Your task to perform on an android device: search for starred emails in the gmail app Image 0: 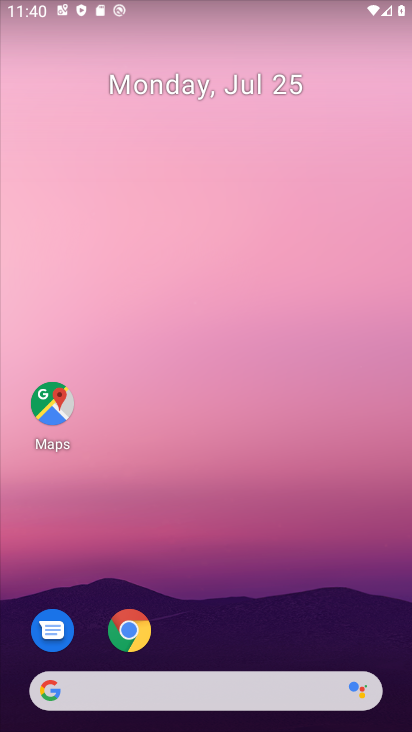
Step 0: drag from (319, 637) to (362, 122)
Your task to perform on an android device: search for starred emails in the gmail app Image 1: 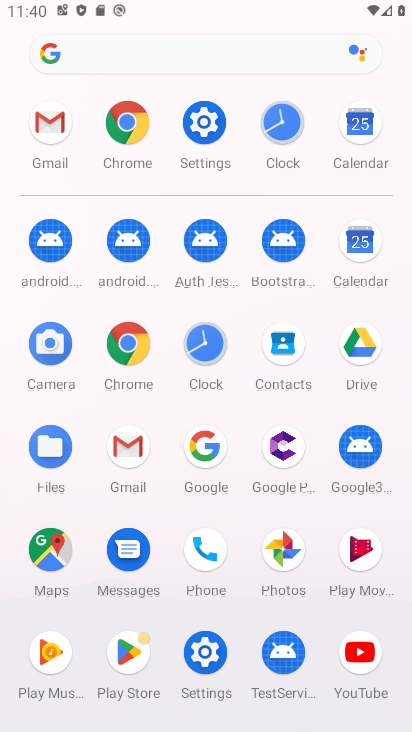
Step 1: click (131, 454)
Your task to perform on an android device: search for starred emails in the gmail app Image 2: 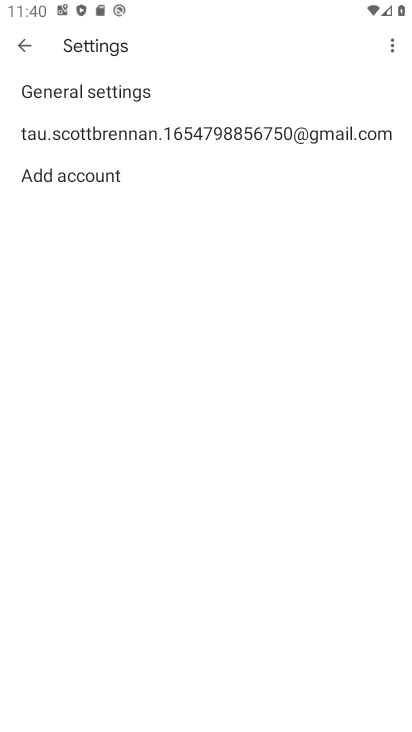
Step 2: press back button
Your task to perform on an android device: search for starred emails in the gmail app Image 3: 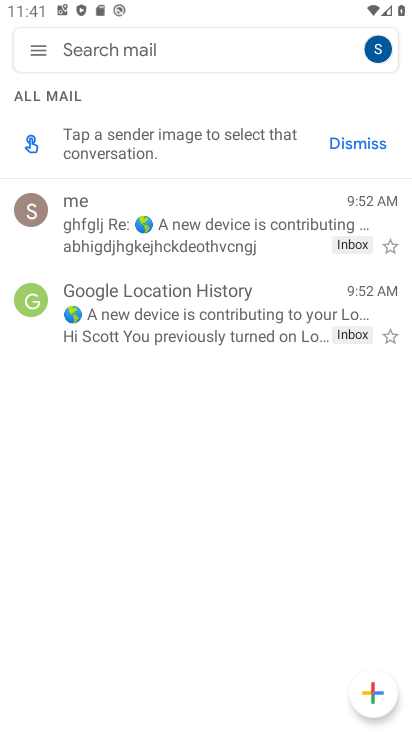
Step 3: click (39, 47)
Your task to perform on an android device: search for starred emails in the gmail app Image 4: 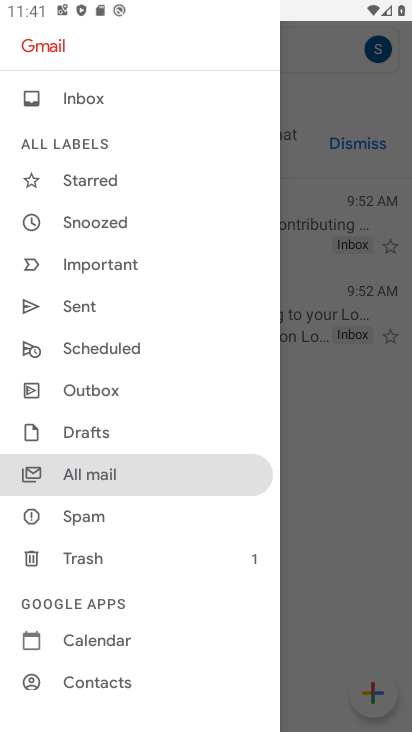
Step 4: click (114, 180)
Your task to perform on an android device: search for starred emails in the gmail app Image 5: 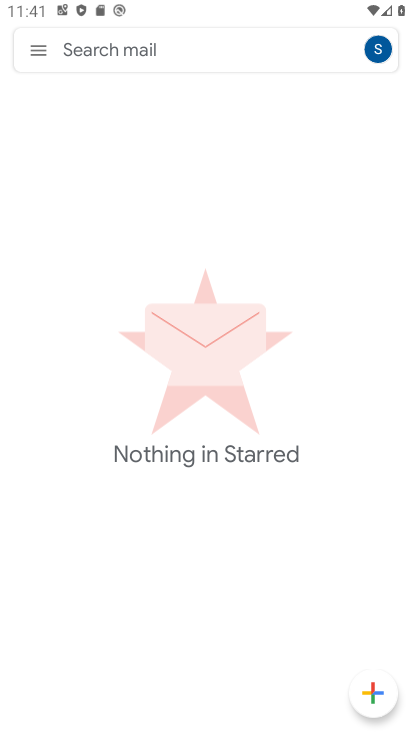
Step 5: task complete